Your task to perform on an android device: add a label to a message in the gmail app Image 0: 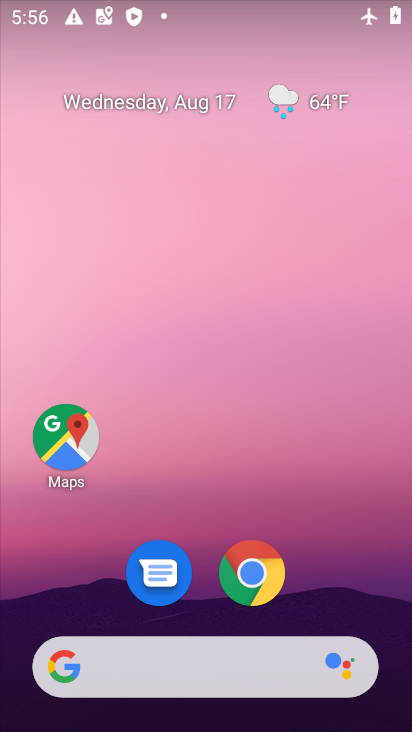
Step 0: drag from (373, 499) to (324, 73)
Your task to perform on an android device: add a label to a message in the gmail app Image 1: 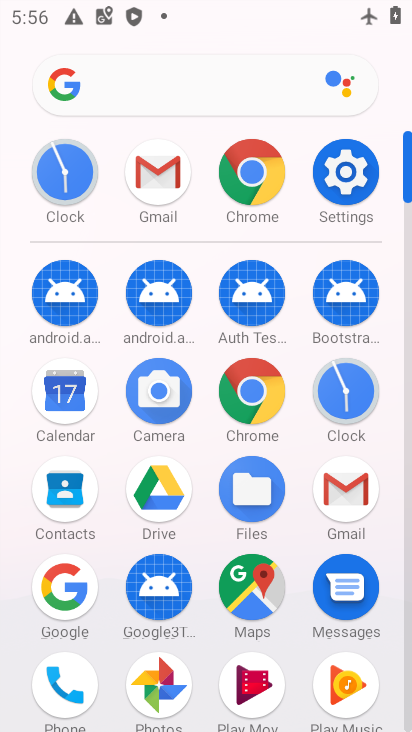
Step 1: click (148, 196)
Your task to perform on an android device: add a label to a message in the gmail app Image 2: 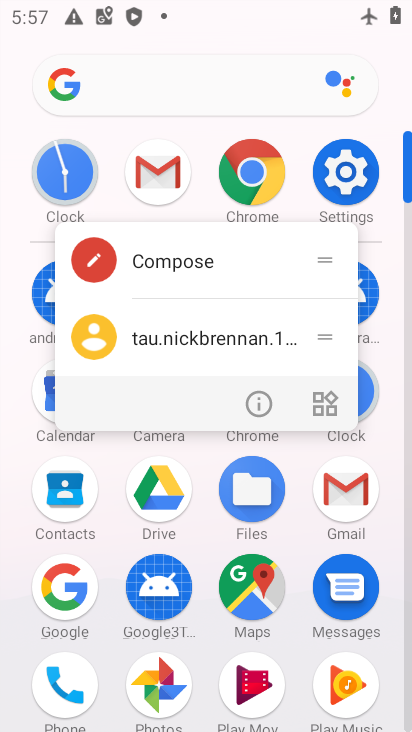
Step 2: click (146, 178)
Your task to perform on an android device: add a label to a message in the gmail app Image 3: 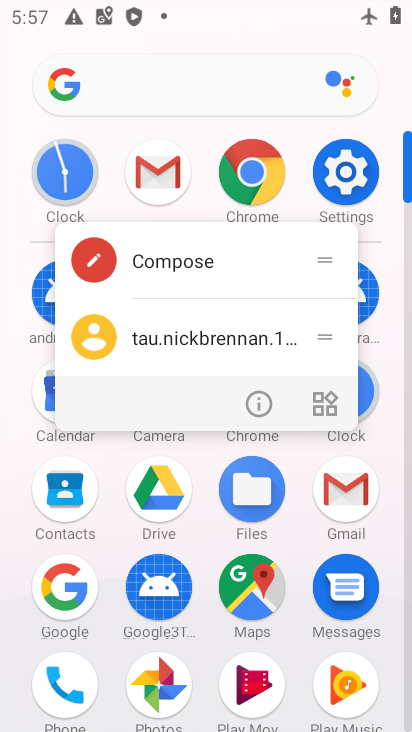
Step 3: click (146, 178)
Your task to perform on an android device: add a label to a message in the gmail app Image 4: 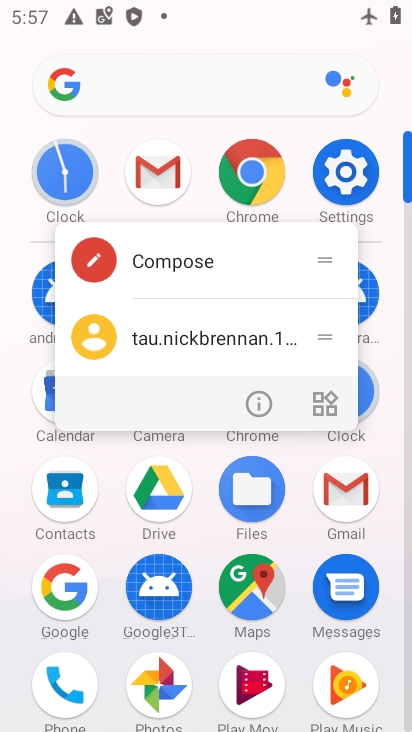
Step 4: click (146, 178)
Your task to perform on an android device: add a label to a message in the gmail app Image 5: 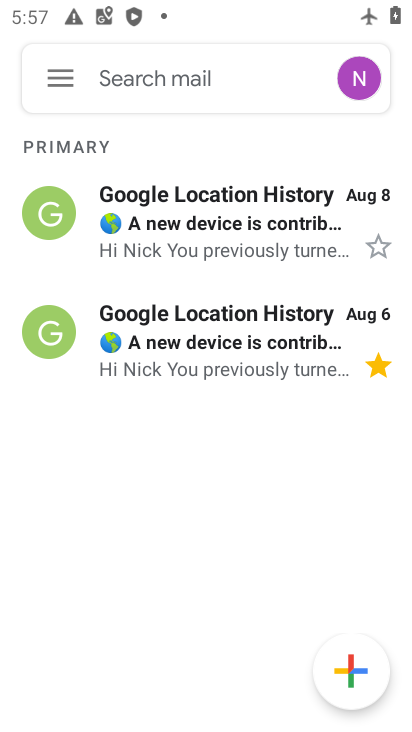
Step 5: task complete